Your task to perform on an android device: Go to Amazon Image 0: 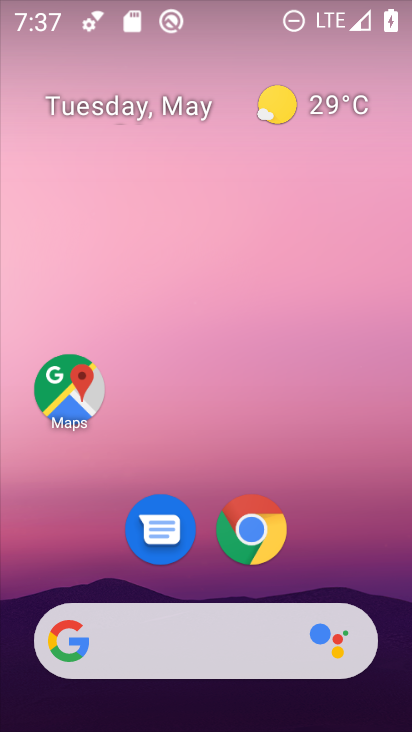
Step 0: drag from (391, 638) to (287, 118)
Your task to perform on an android device: Go to Amazon Image 1: 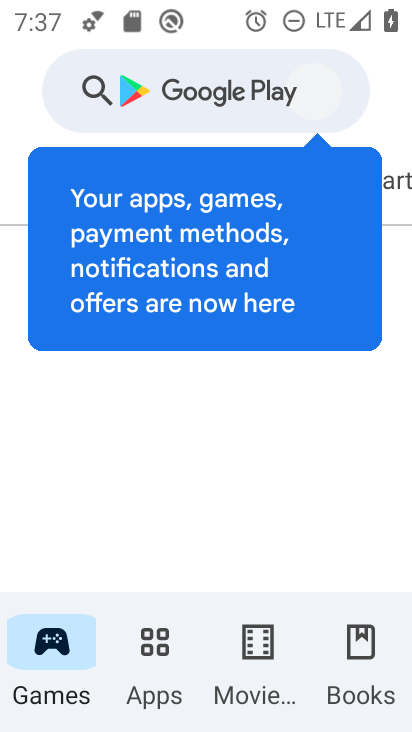
Step 1: press home button
Your task to perform on an android device: Go to Amazon Image 2: 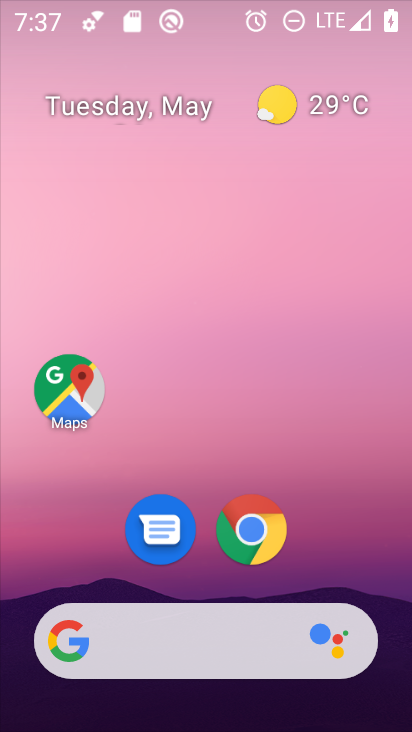
Step 2: drag from (395, 645) to (294, 37)
Your task to perform on an android device: Go to Amazon Image 3: 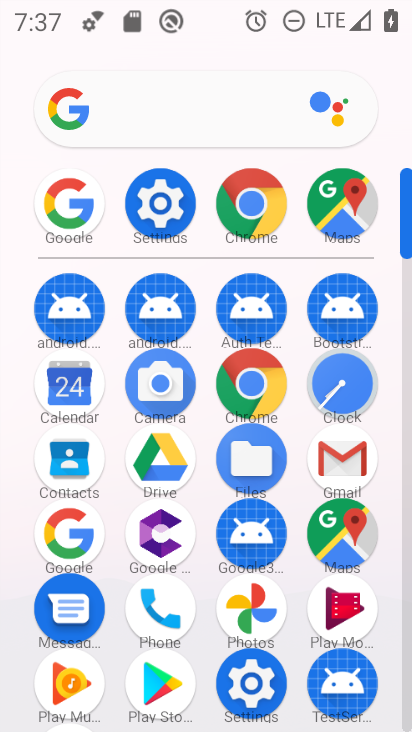
Step 3: click (67, 559)
Your task to perform on an android device: Go to Amazon Image 4: 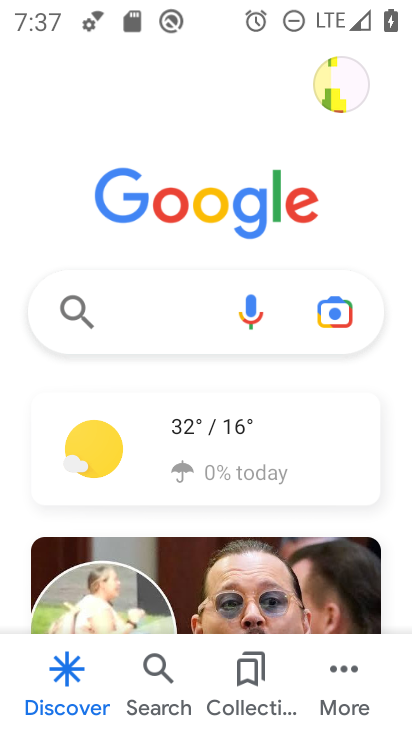
Step 4: click (194, 307)
Your task to perform on an android device: Go to Amazon Image 5: 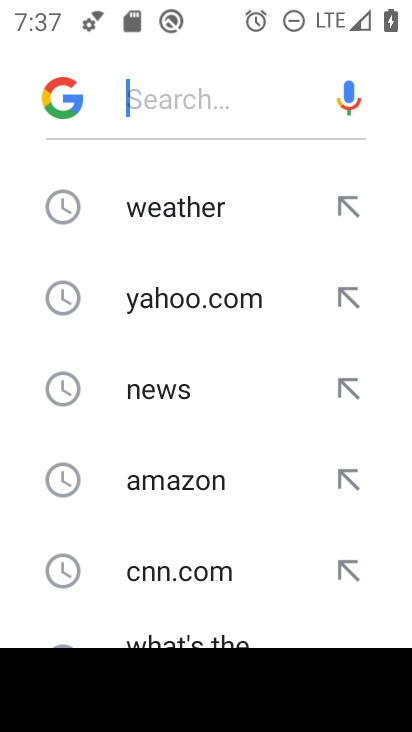
Step 5: click (212, 500)
Your task to perform on an android device: Go to Amazon Image 6: 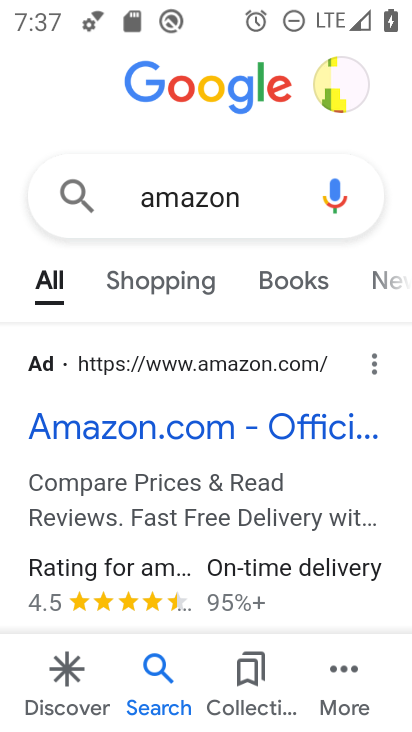
Step 6: task complete